Your task to perform on an android device: What's the weather going to be tomorrow? Image 0: 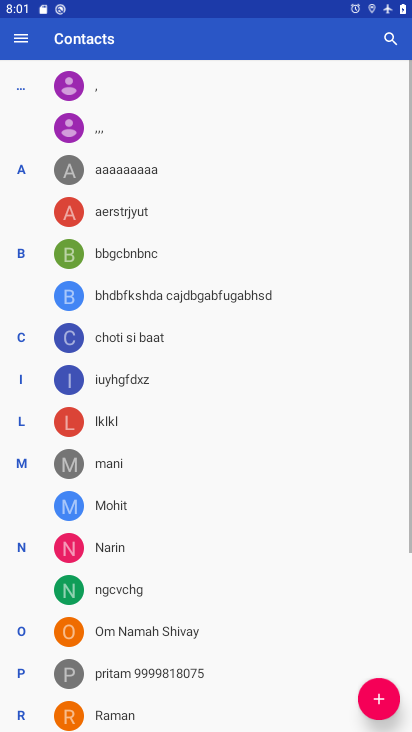
Step 0: drag from (174, 689) to (244, 211)
Your task to perform on an android device: What's the weather going to be tomorrow? Image 1: 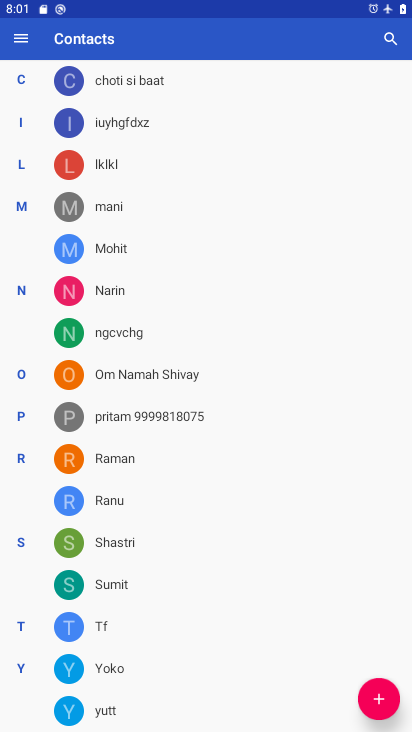
Step 1: press home button
Your task to perform on an android device: What's the weather going to be tomorrow? Image 2: 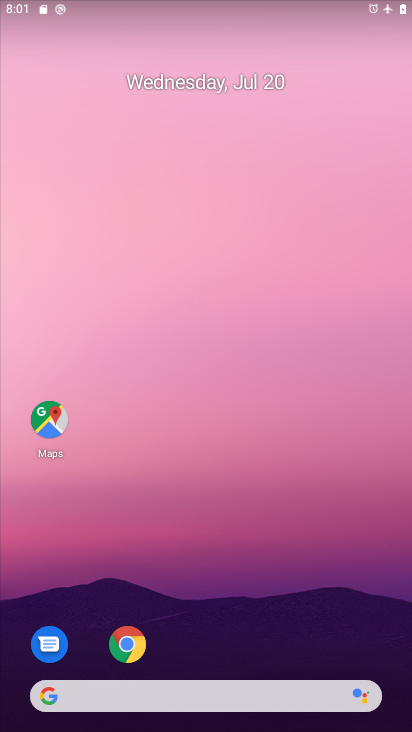
Step 2: drag from (144, 696) to (198, 343)
Your task to perform on an android device: What's the weather going to be tomorrow? Image 3: 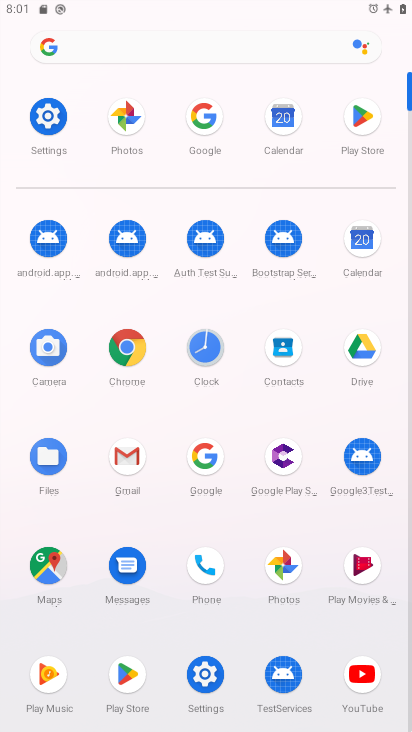
Step 3: click (201, 451)
Your task to perform on an android device: What's the weather going to be tomorrow? Image 4: 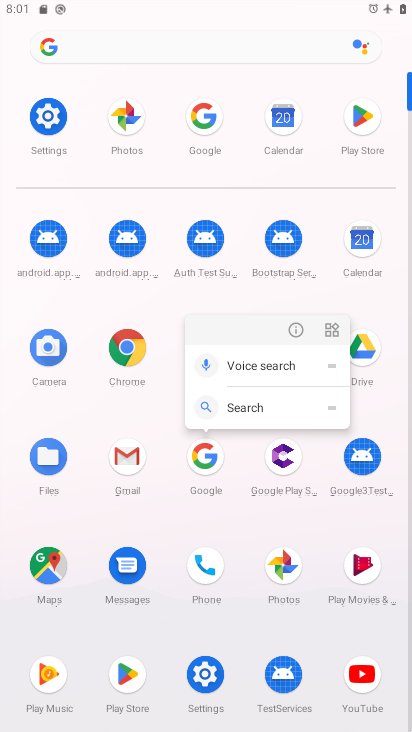
Step 4: click (193, 455)
Your task to perform on an android device: What's the weather going to be tomorrow? Image 5: 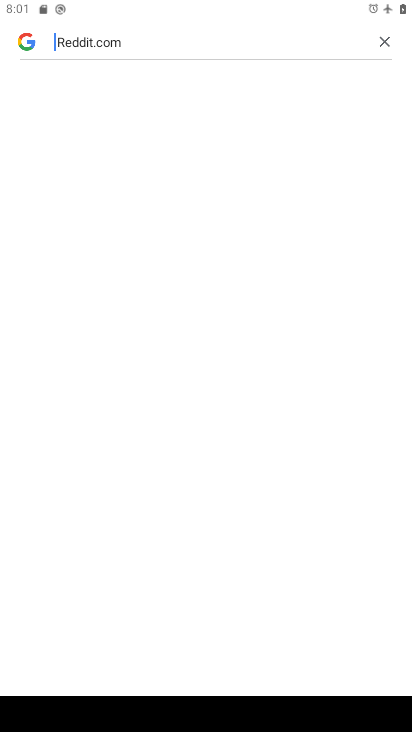
Step 5: click (145, 38)
Your task to perform on an android device: What's the weather going to be tomorrow? Image 6: 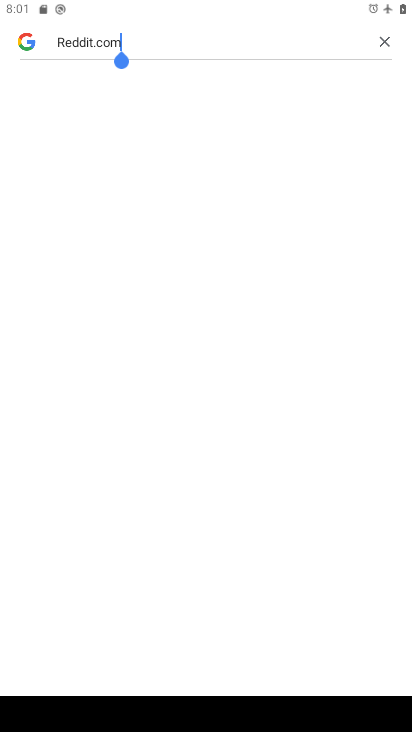
Step 6: click (383, 47)
Your task to perform on an android device: What's the weather going to be tomorrow? Image 7: 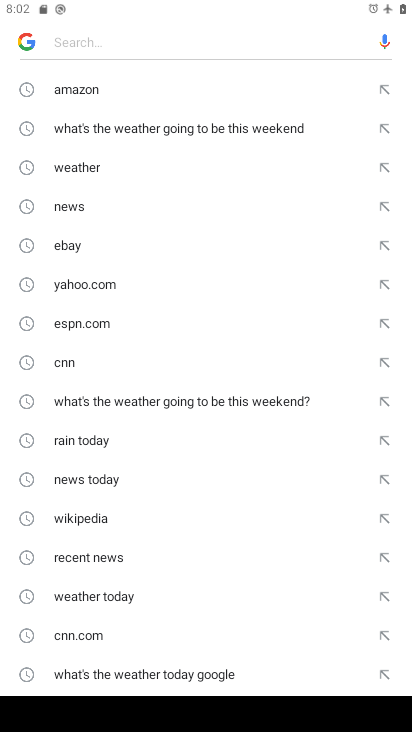
Step 7: drag from (119, 628) to (148, 277)
Your task to perform on an android device: What's the weather going to be tomorrow? Image 8: 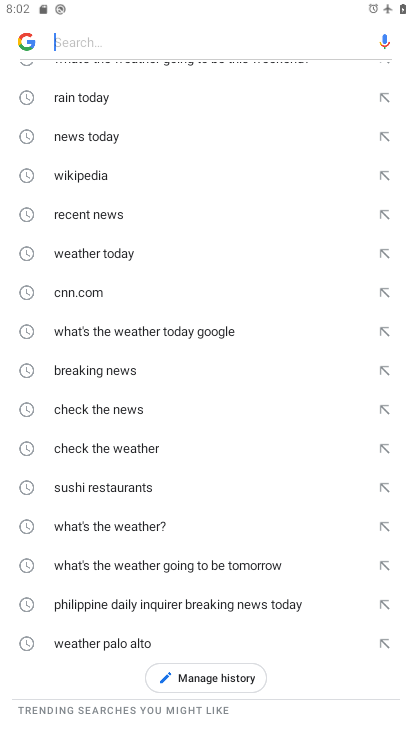
Step 8: click (172, 571)
Your task to perform on an android device: What's the weather going to be tomorrow? Image 9: 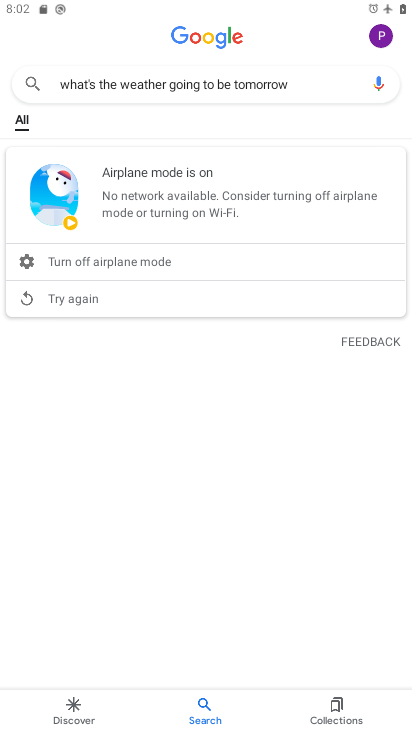
Step 9: task complete